Your task to perform on an android device: open wifi settings Image 0: 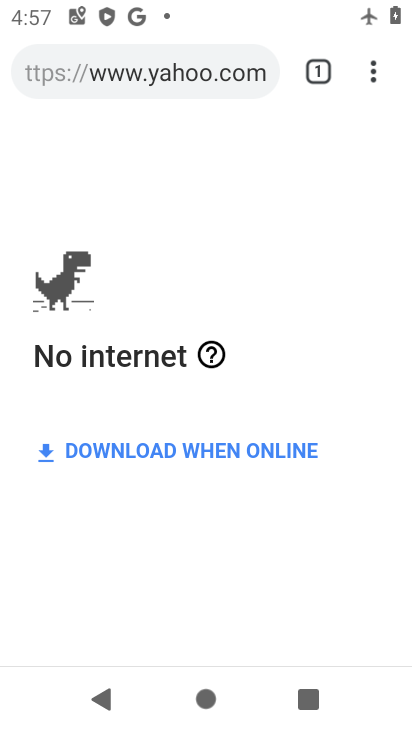
Step 0: drag from (361, 537) to (394, 126)
Your task to perform on an android device: open wifi settings Image 1: 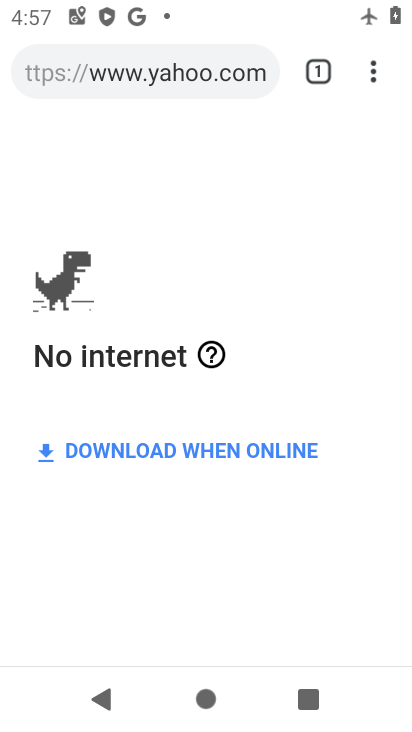
Step 1: press home button
Your task to perform on an android device: open wifi settings Image 2: 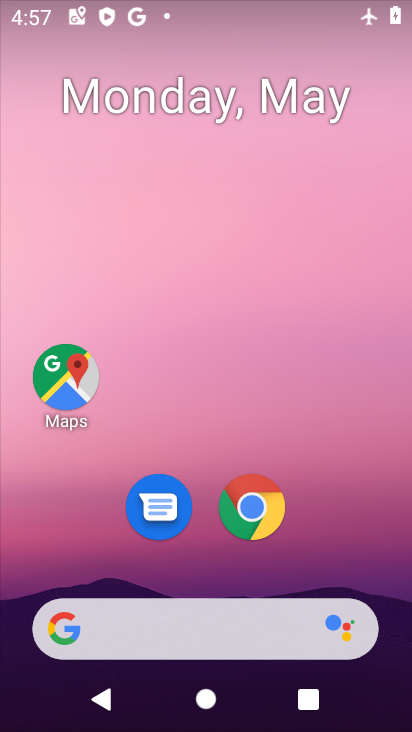
Step 2: drag from (319, 543) to (326, 111)
Your task to perform on an android device: open wifi settings Image 3: 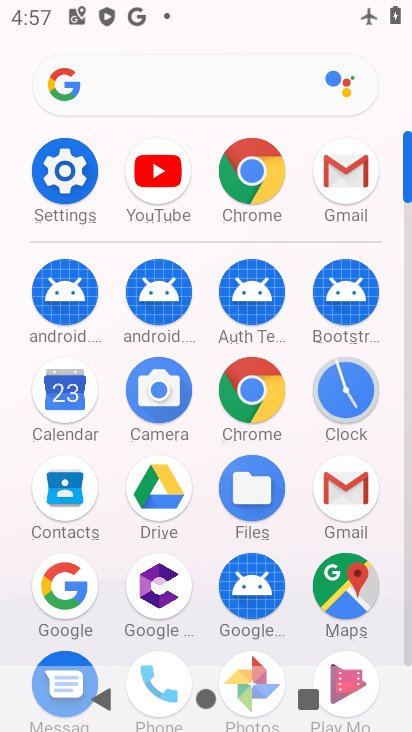
Step 3: click (62, 176)
Your task to perform on an android device: open wifi settings Image 4: 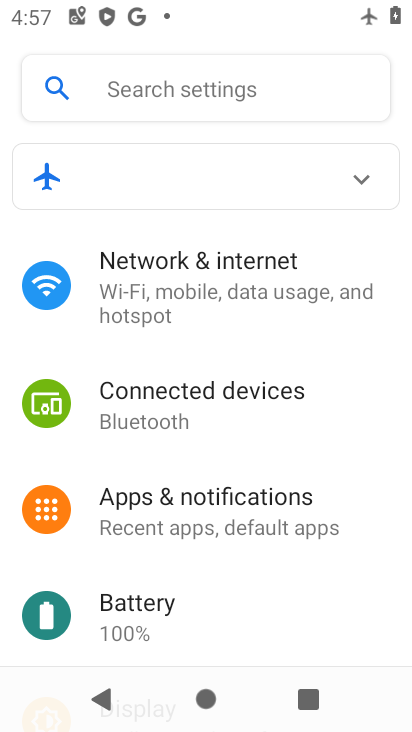
Step 4: click (209, 285)
Your task to perform on an android device: open wifi settings Image 5: 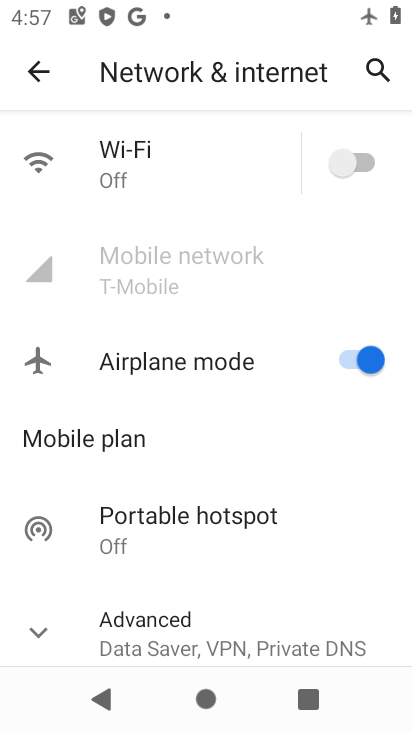
Step 5: click (144, 176)
Your task to perform on an android device: open wifi settings Image 6: 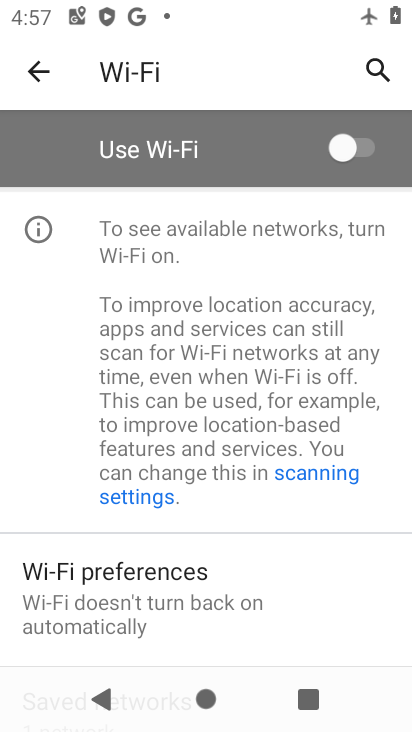
Step 6: task complete